Your task to perform on an android device: check google app version Image 0: 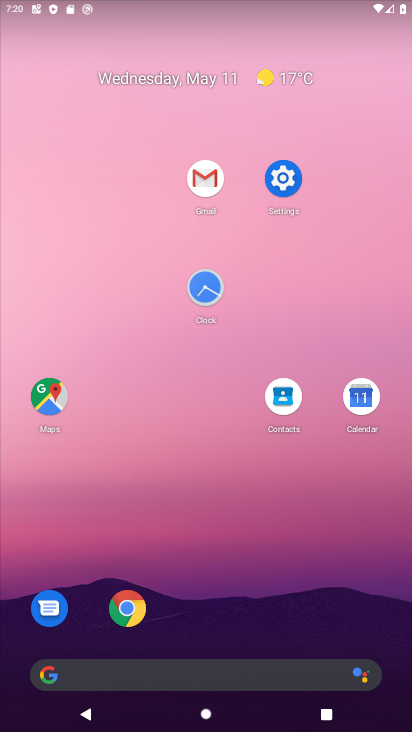
Step 0: click (139, 597)
Your task to perform on an android device: check google app version Image 1: 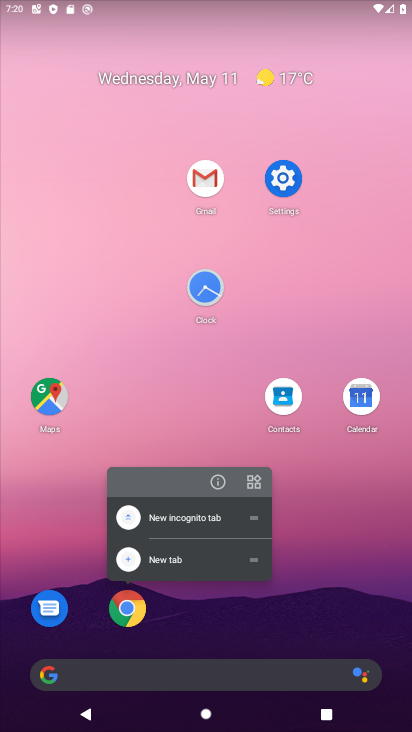
Step 1: click (215, 483)
Your task to perform on an android device: check google app version Image 2: 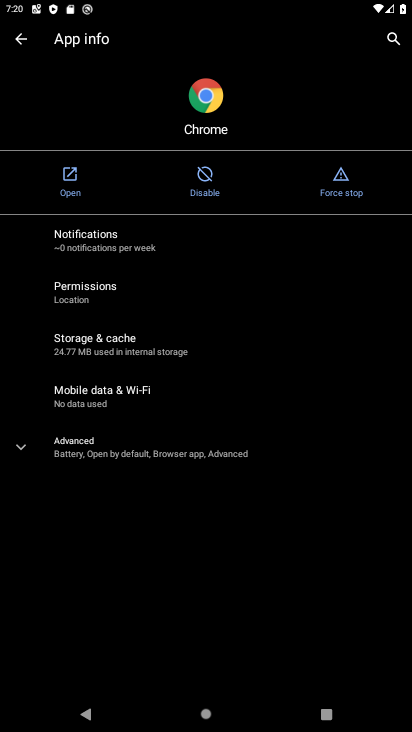
Step 2: click (107, 430)
Your task to perform on an android device: check google app version Image 3: 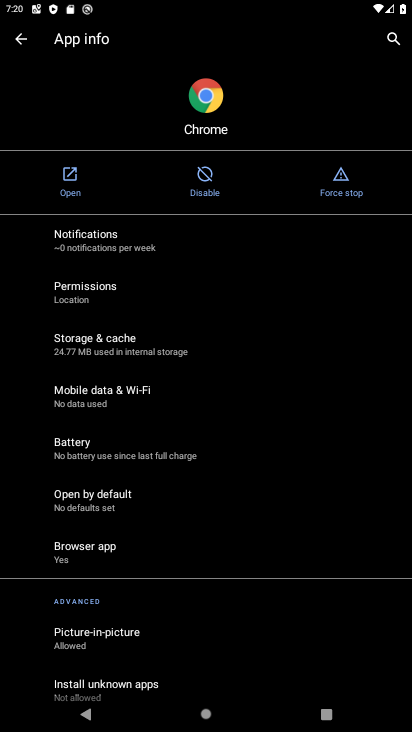
Step 3: task complete